Your task to perform on an android device: change your default location settings in chrome Image 0: 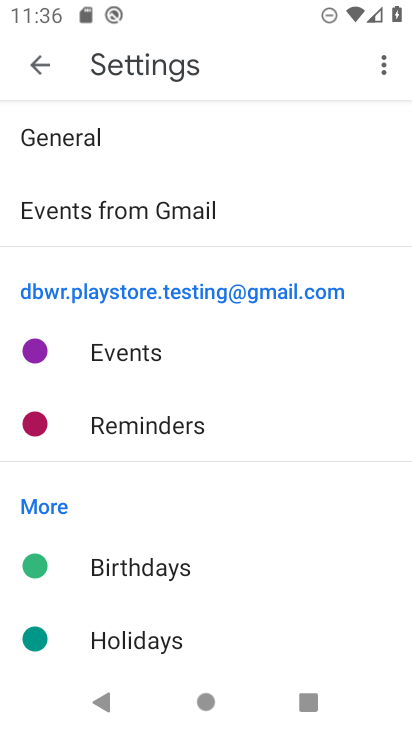
Step 0: press home button
Your task to perform on an android device: change your default location settings in chrome Image 1: 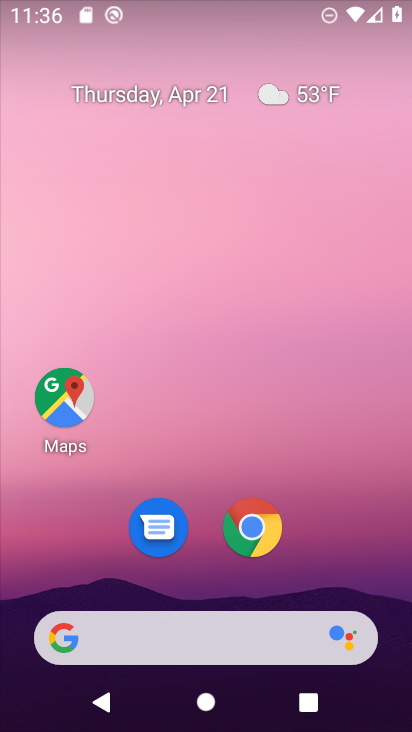
Step 1: drag from (355, 535) to (309, 153)
Your task to perform on an android device: change your default location settings in chrome Image 2: 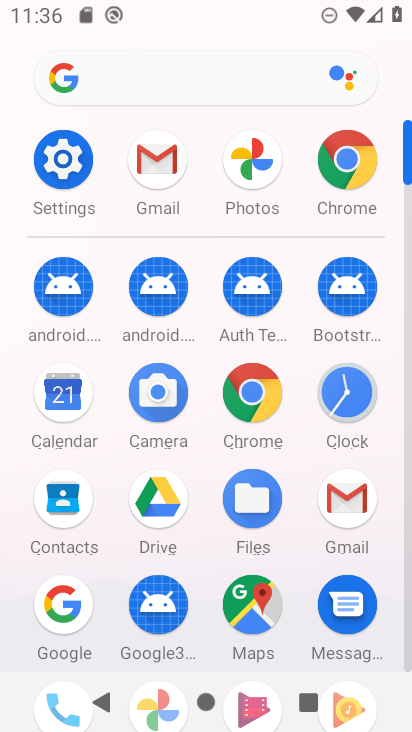
Step 2: click (251, 398)
Your task to perform on an android device: change your default location settings in chrome Image 3: 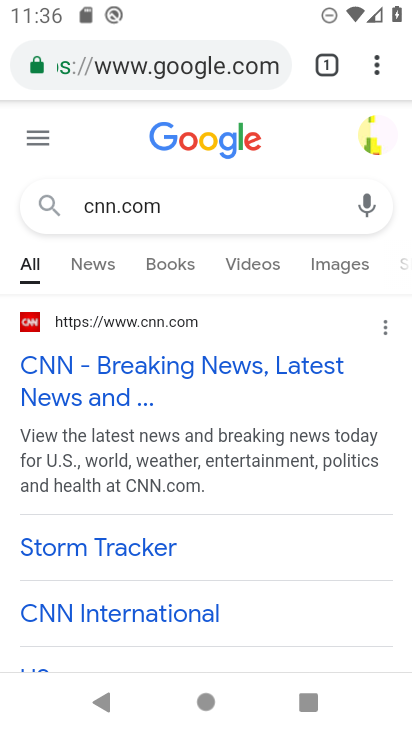
Step 3: click (376, 65)
Your task to perform on an android device: change your default location settings in chrome Image 4: 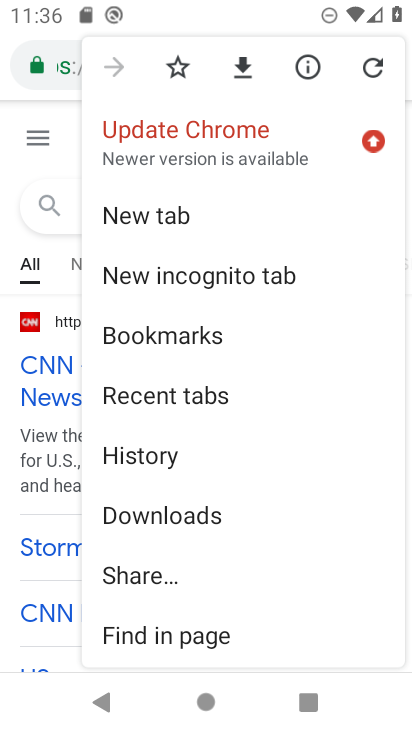
Step 4: drag from (318, 572) to (317, 464)
Your task to perform on an android device: change your default location settings in chrome Image 5: 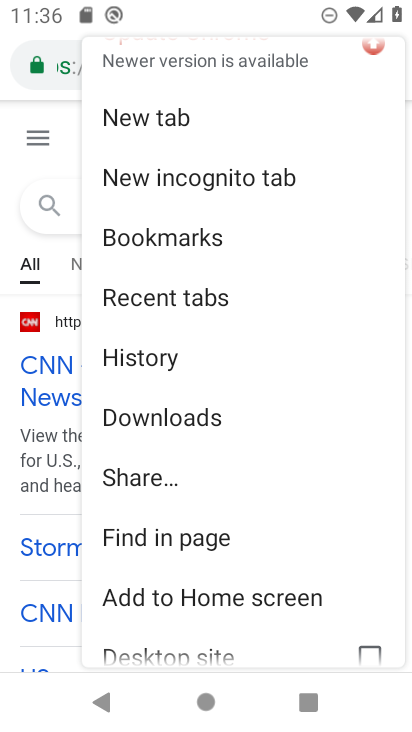
Step 5: drag from (330, 567) to (338, 431)
Your task to perform on an android device: change your default location settings in chrome Image 6: 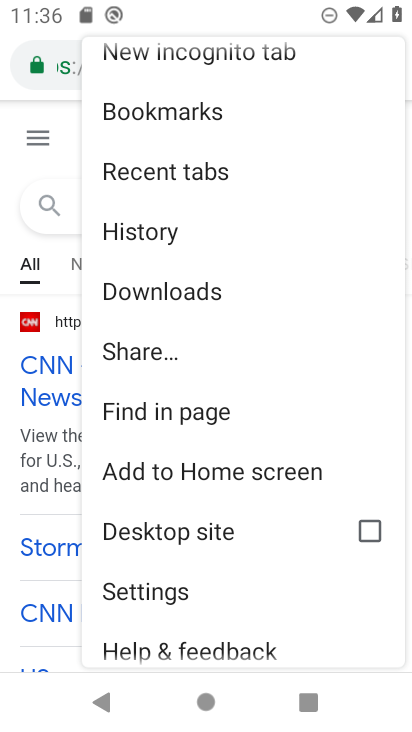
Step 6: drag from (305, 575) to (304, 406)
Your task to perform on an android device: change your default location settings in chrome Image 7: 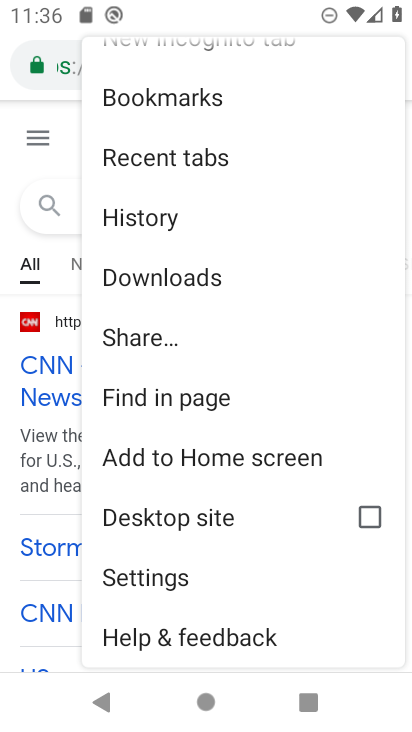
Step 7: click (177, 577)
Your task to perform on an android device: change your default location settings in chrome Image 8: 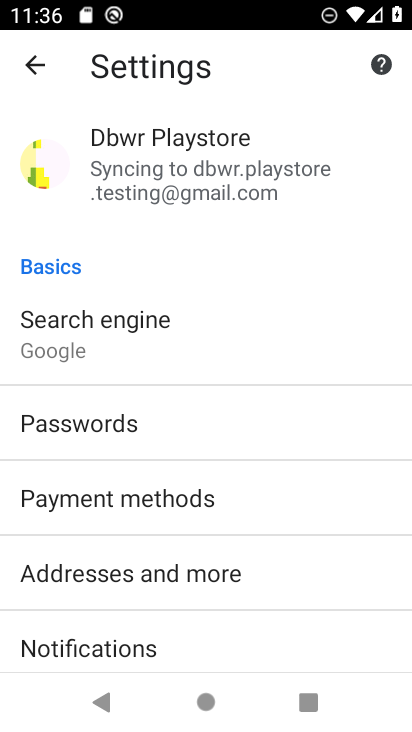
Step 8: drag from (341, 588) to (353, 449)
Your task to perform on an android device: change your default location settings in chrome Image 9: 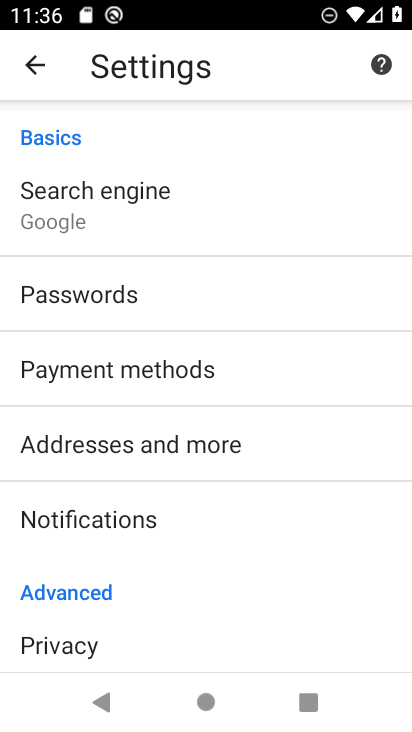
Step 9: drag from (336, 587) to (335, 455)
Your task to perform on an android device: change your default location settings in chrome Image 10: 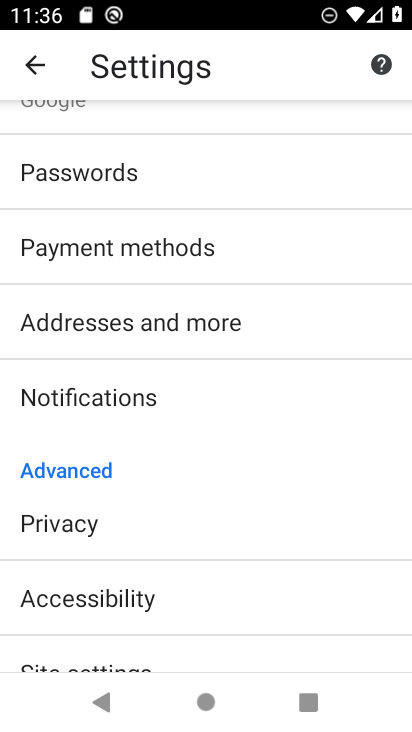
Step 10: drag from (316, 593) to (328, 449)
Your task to perform on an android device: change your default location settings in chrome Image 11: 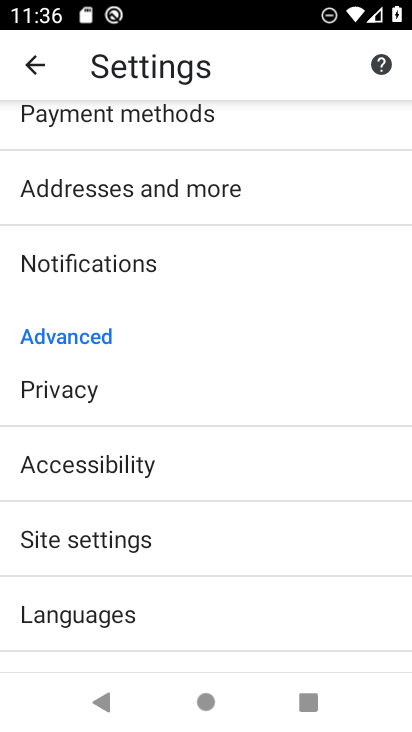
Step 11: drag from (318, 587) to (324, 450)
Your task to perform on an android device: change your default location settings in chrome Image 12: 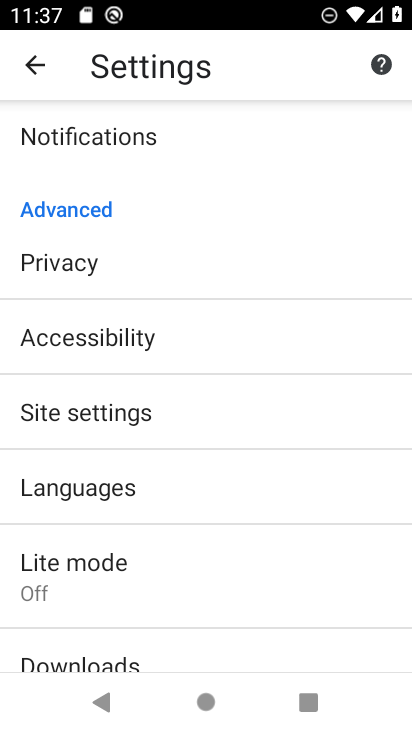
Step 12: drag from (322, 542) to (326, 425)
Your task to perform on an android device: change your default location settings in chrome Image 13: 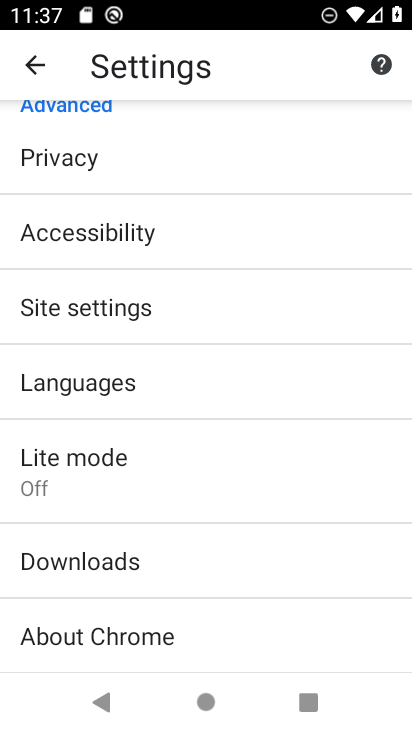
Step 13: drag from (317, 320) to (307, 463)
Your task to perform on an android device: change your default location settings in chrome Image 14: 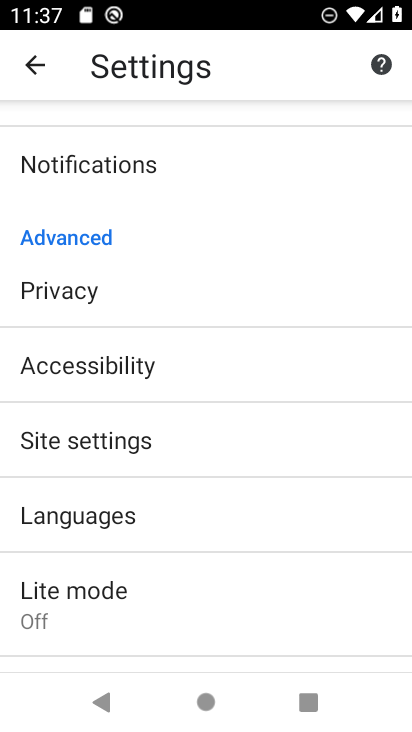
Step 14: click (303, 445)
Your task to perform on an android device: change your default location settings in chrome Image 15: 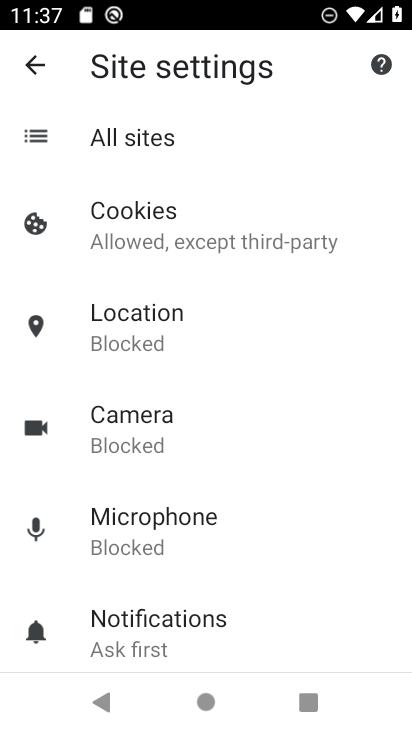
Step 15: drag from (319, 514) to (319, 397)
Your task to perform on an android device: change your default location settings in chrome Image 16: 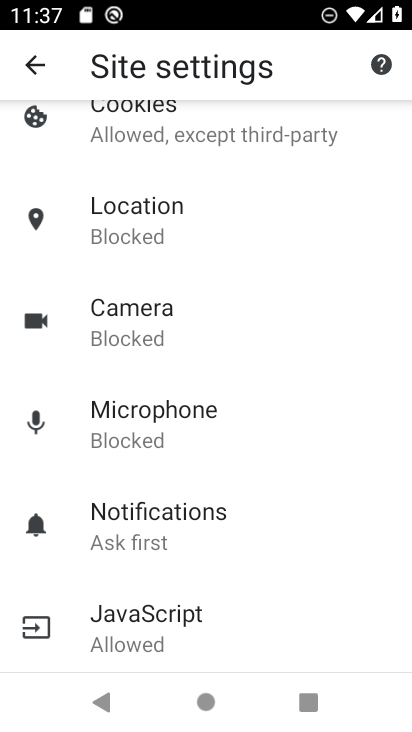
Step 16: drag from (319, 537) to (324, 434)
Your task to perform on an android device: change your default location settings in chrome Image 17: 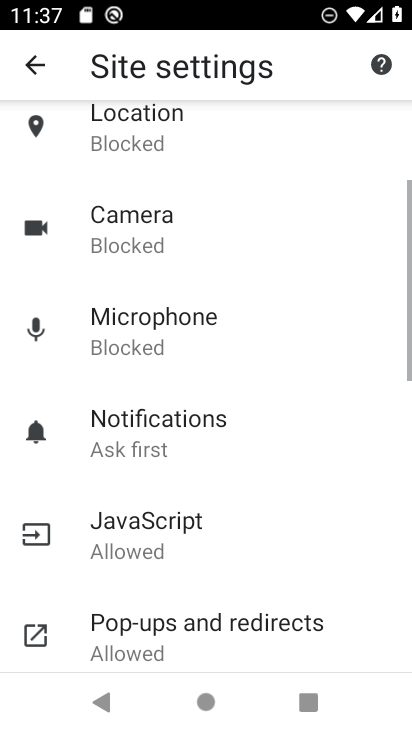
Step 17: drag from (317, 304) to (317, 447)
Your task to perform on an android device: change your default location settings in chrome Image 18: 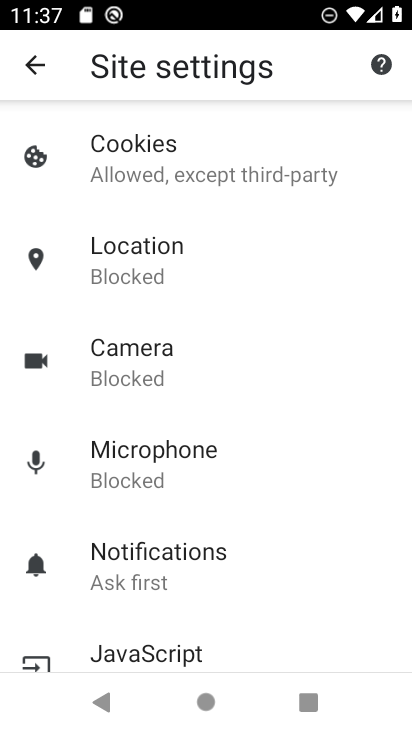
Step 18: drag from (320, 323) to (313, 458)
Your task to perform on an android device: change your default location settings in chrome Image 19: 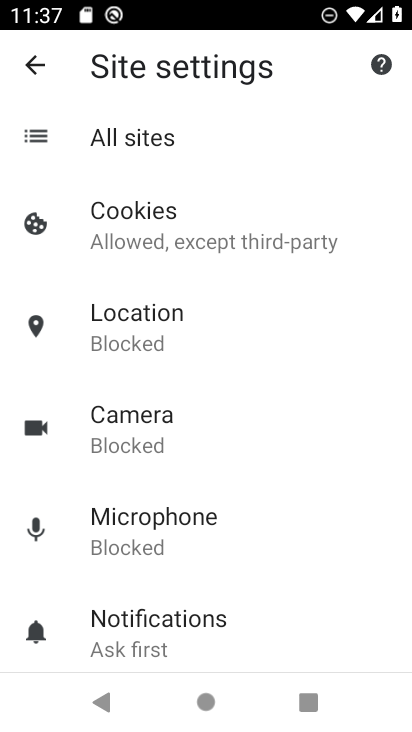
Step 19: click (165, 341)
Your task to perform on an android device: change your default location settings in chrome Image 20: 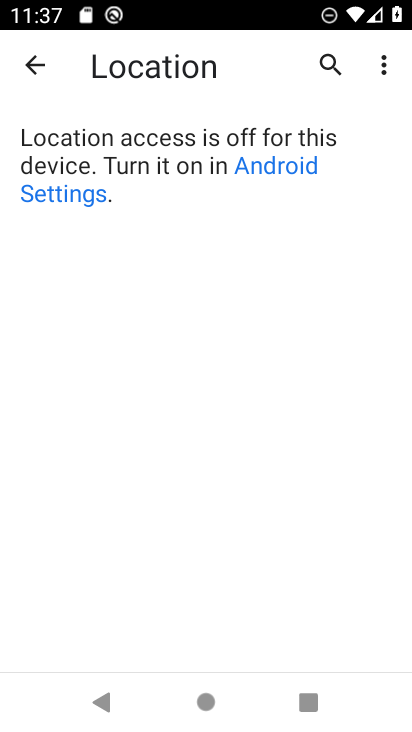
Step 20: click (290, 157)
Your task to perform on an android device: change your default location settings in chrome Image 21: 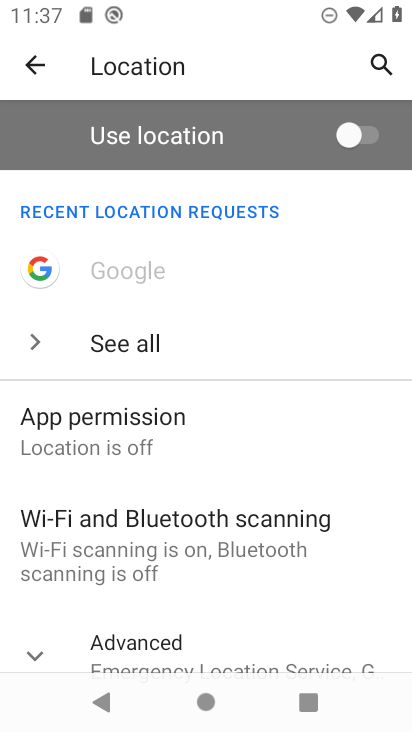
Step 21: click (342, 140)
Your task to perform on an android device: change your default location settings in chrome Image 22: 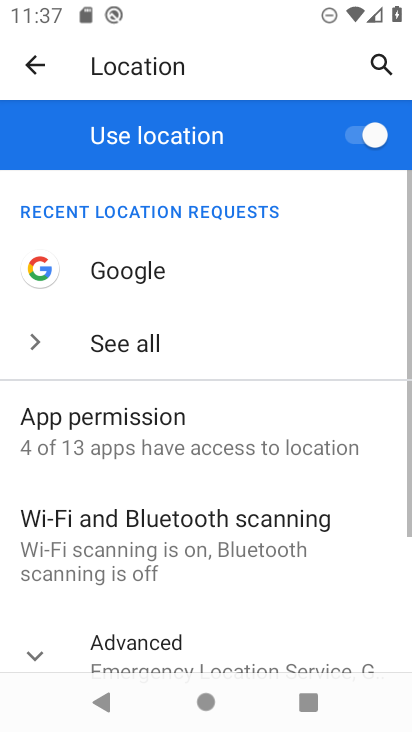
Step 22: task complete